Your task to perform on an android device: open app "Chime – Mobile Banking" Image 0: 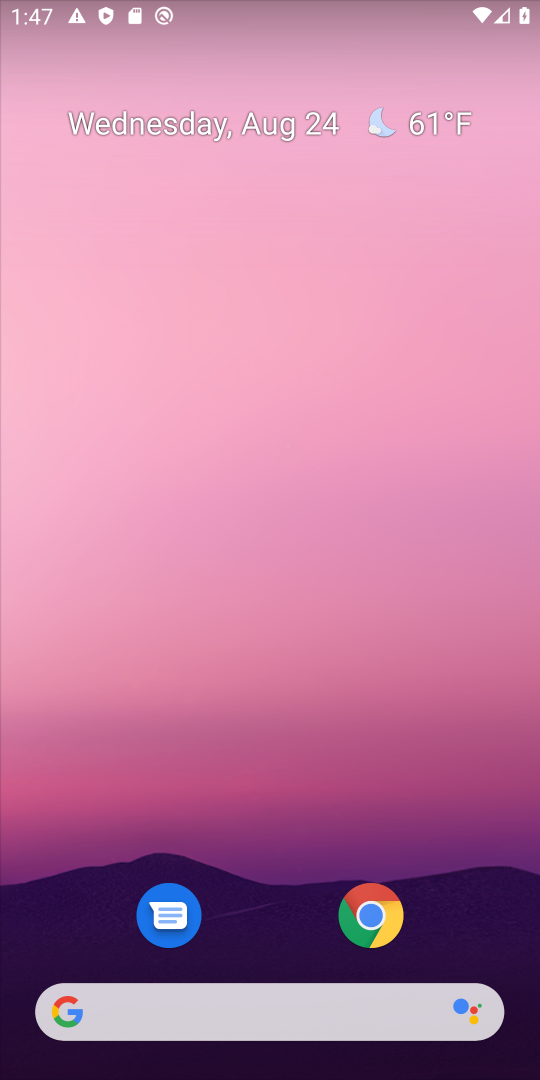
Step 0: drag from (237, 861) to (237, 233)
Your task to perform on an android device: open app "Chime – Mobile Banking" Image 1: 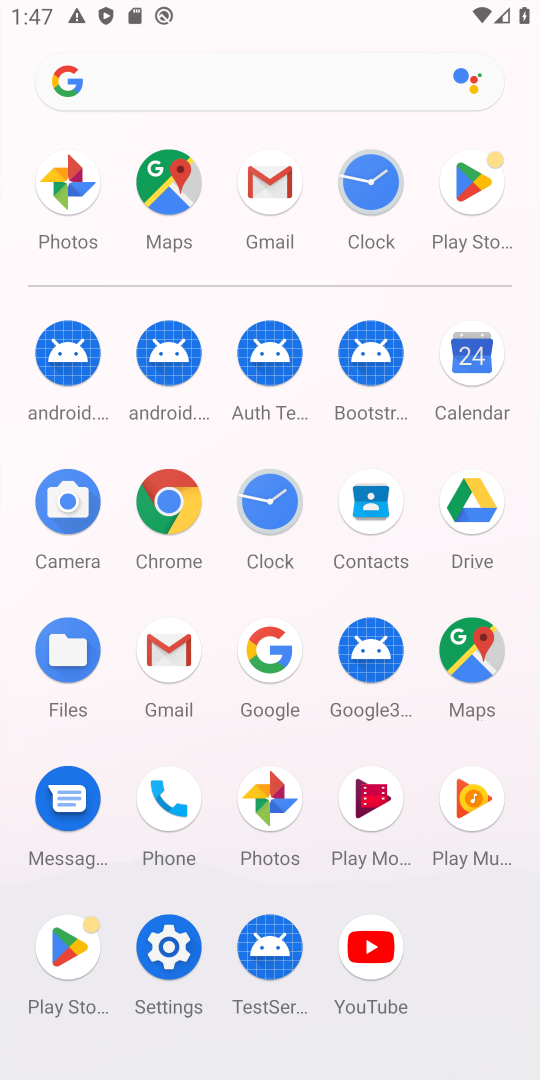
Step 1: click (473, 159)
Your task to perform on an android device: open app "Chime – Mobile Banking" Image 2: 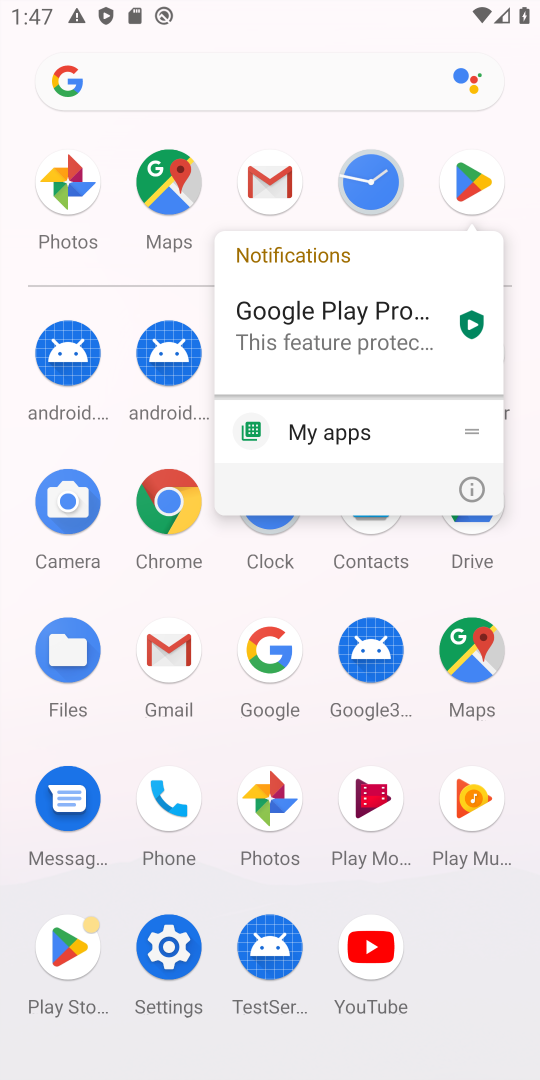
Step 2: click (458, 195)
Your task to perform on an android device: open app "Chime – Mobile Banking" Image 3: 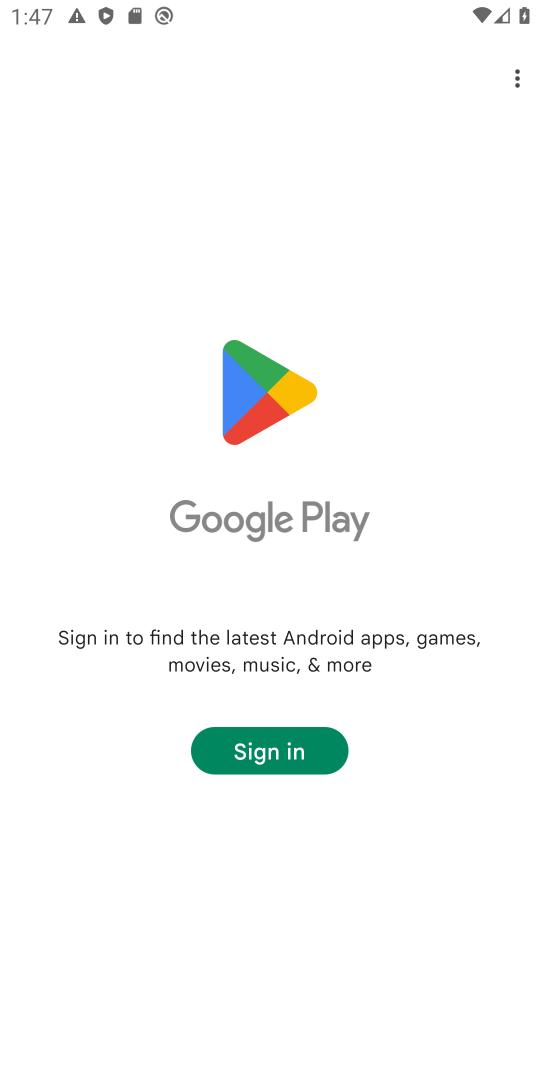
Step 3: task complete